Your task to perform on an android device: stop showing notifications on the lock screen Image 0: 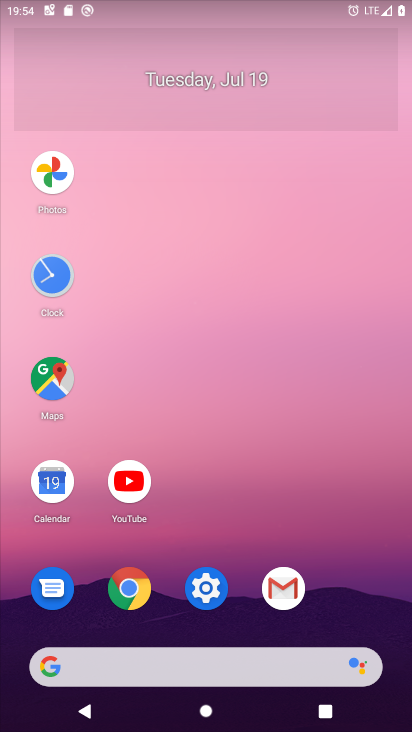
Step 0: click (204, 591)
Your task to perform on an android device: stop showing notifications on the lock screen Image 1: 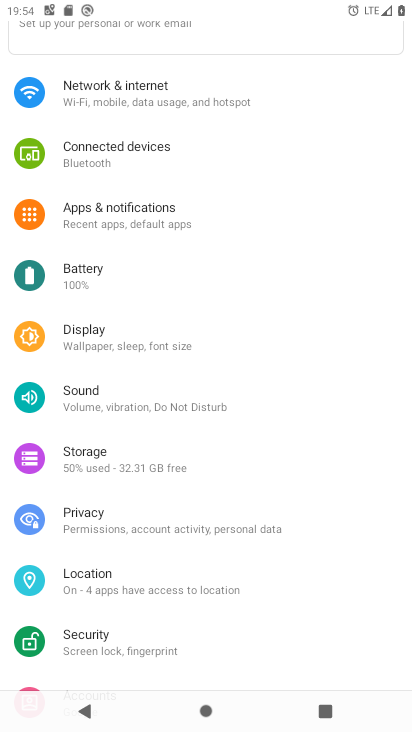
Step 1: click (140, 206)
Your task to perform on an android device: stop showing notifications on the lock screen Image 2: 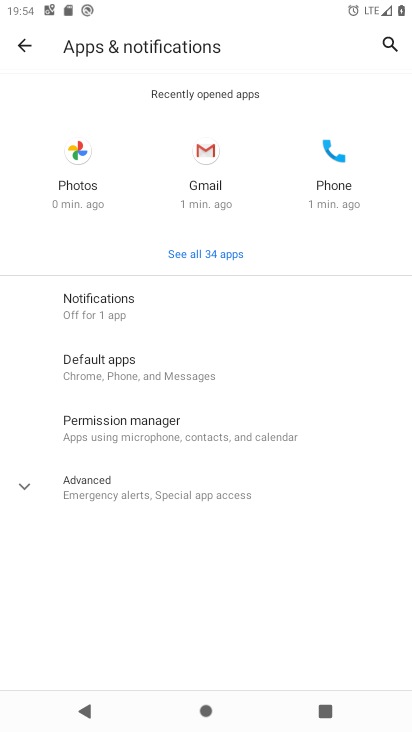
Step 2: click (104, 292)
Your task to perform on an android device: stop showing notifications on the lock screen Image 3: 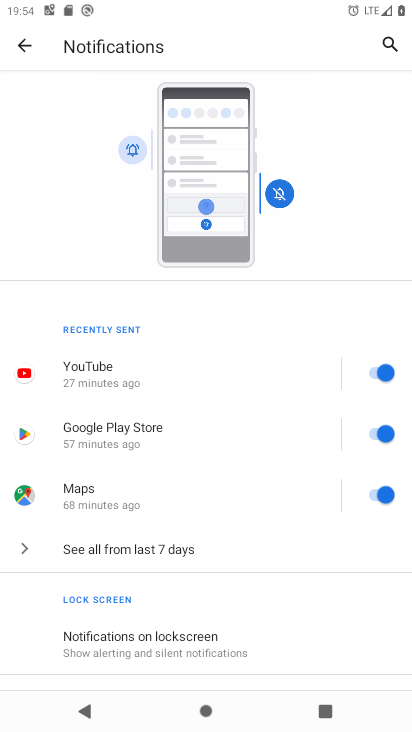
Step 3: click (141, 636)
Your task to perform on an android device: stop showing notifications on the lock screen Image 4: 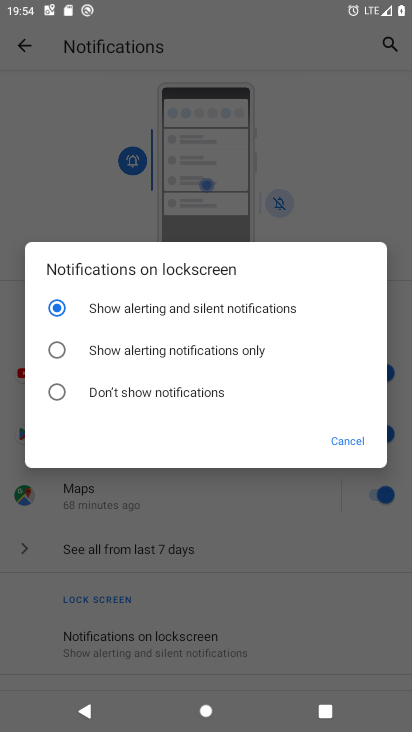
Step 4: click (53, 391)
Your task to perform on an android device: stop showing notifications on the lock screen Image 5: 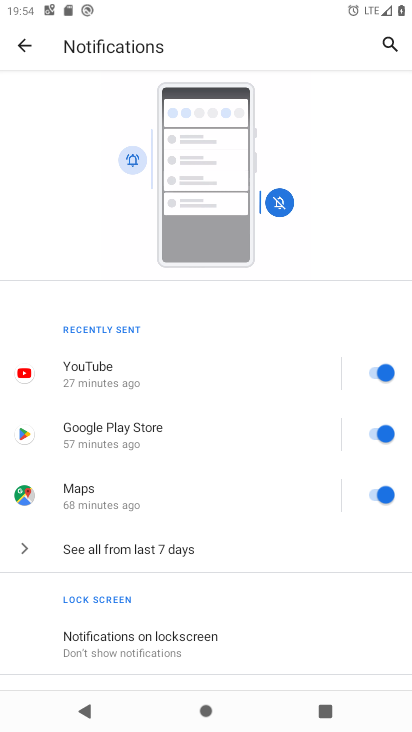
Step 5: task complete